Your task to perform on an android device: Search for sushi restaurants on Maps Image 0: 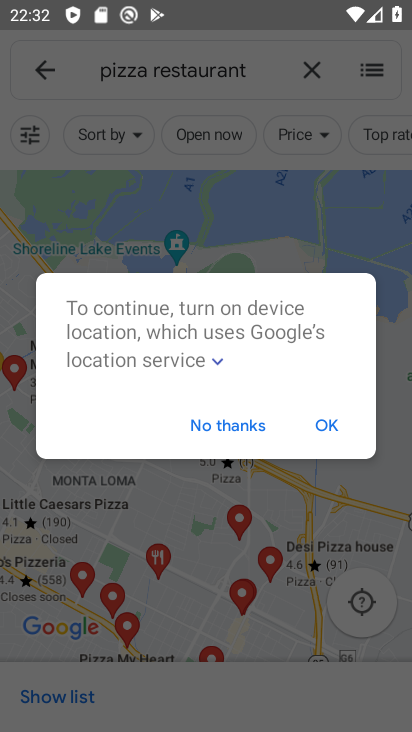
Step 0: press back button
Your task to perform on an android device: Search for sushi restaurants on Maps Image 1: 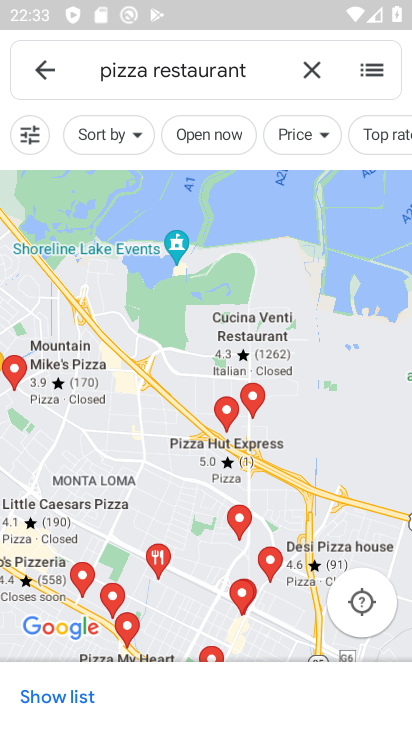
Step 1: click (300, 49)
Your task to perform on an android device: Search for sushi restaurants on Maps Image 2: 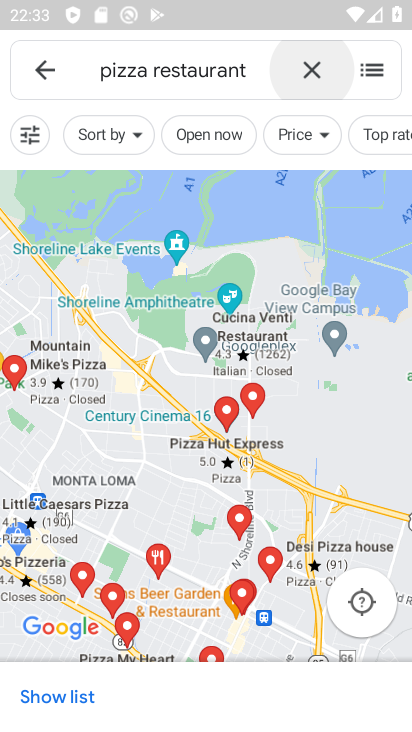
Step 2: click (309, 64)
Your task to perform on an android device: Search for sushi restaurants on Maps Image 3: 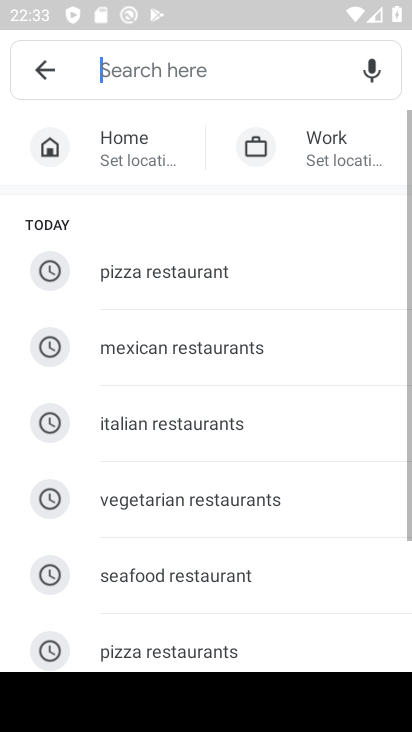
Step 3: click (209, 64)
Your task to perform on an android device: Search for sushi restaurants on Maps Image 4: 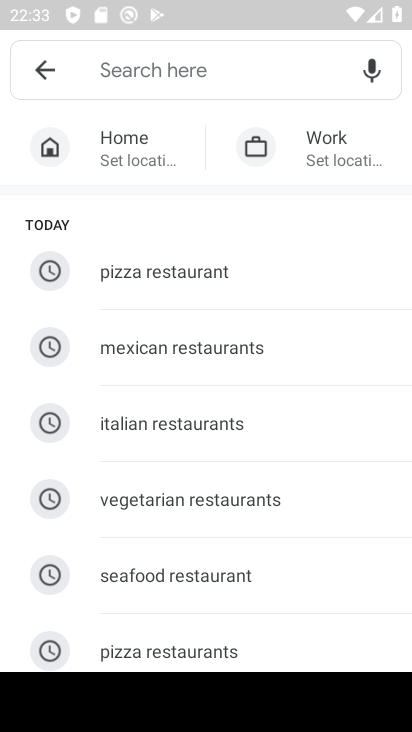
Step 4: drag from (178, 555) to (139, 212)
Your task to perform on an android device: Search for sushi restaurants on Maps Image 5: 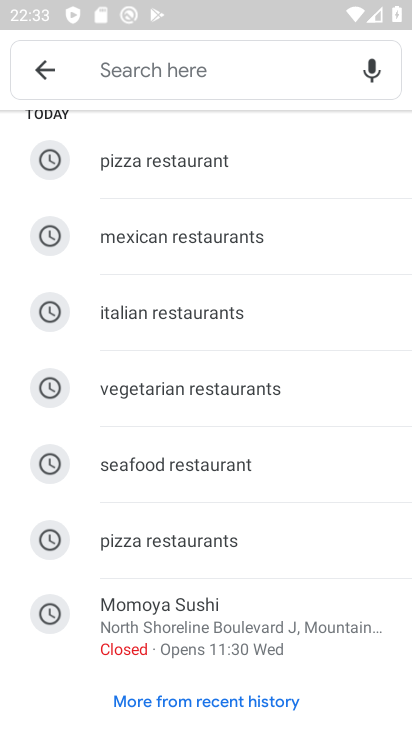
Step 5: click (234, 60)
Your task to perform on an android device: Search for sushi restaurants on Maps Image 6: 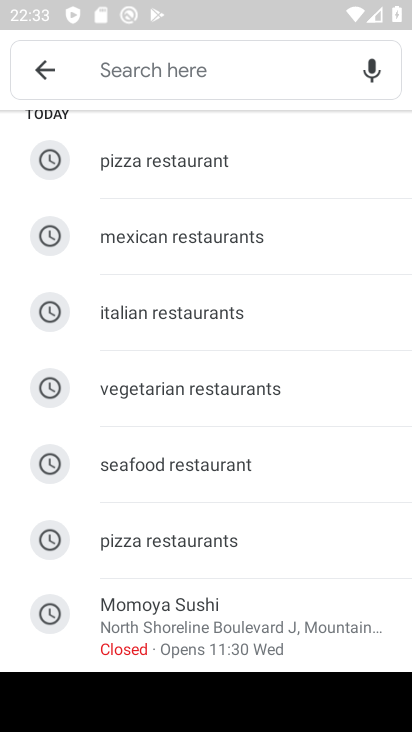
Step 6: type "sushi restuarant"
Your task to perform on an android device: Search for sushi restaurants on Maps Image 7: 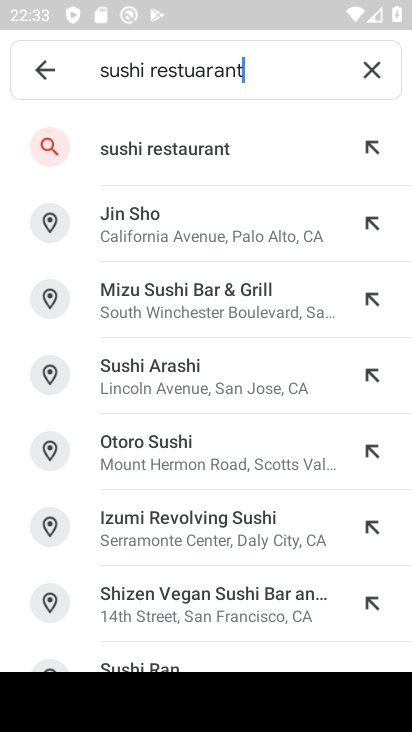
Step 7: click (125, 139)
Your task to perform on an android device: Search for sushi restaurants on Maps Image 8: 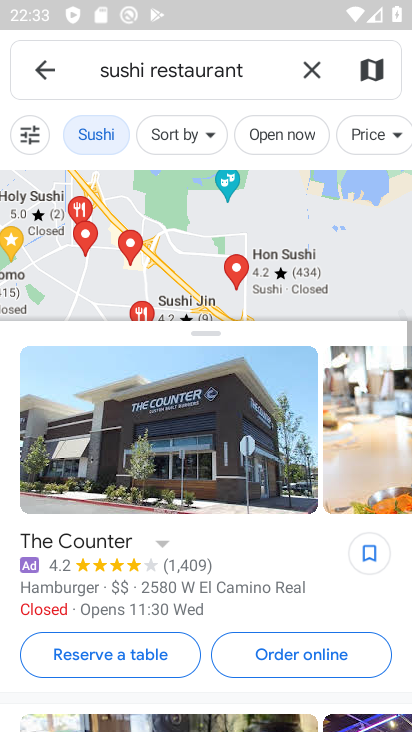
Step 8: task complete